Your task to perform on an android device: Search for the best gaming mouse on Best Buy. Image 0: 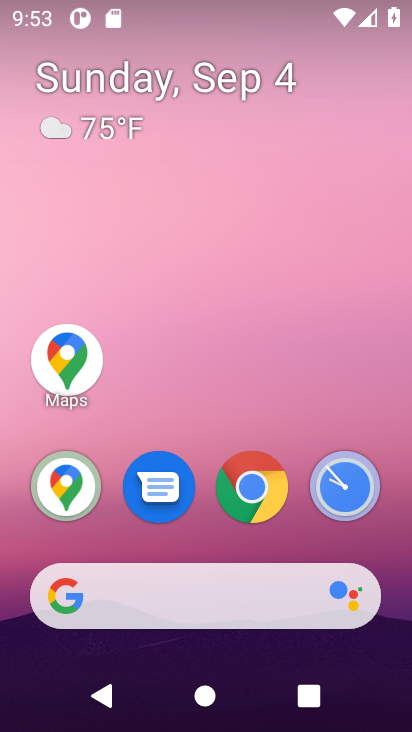
Step 0: click (47, 351)
Your task to perform on an android device: Search for the best gaming mouse on Best Buy. Image 1: 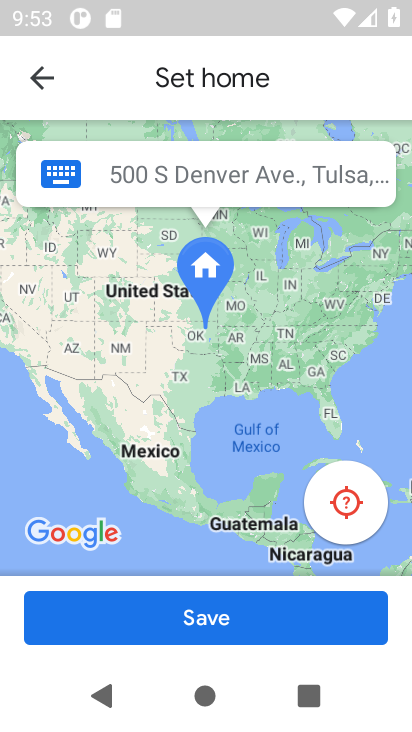
Step 1: click (332, 636)
Your task to perform on an android device: Search for the best gaming mouse on Best Buy. Image 2: 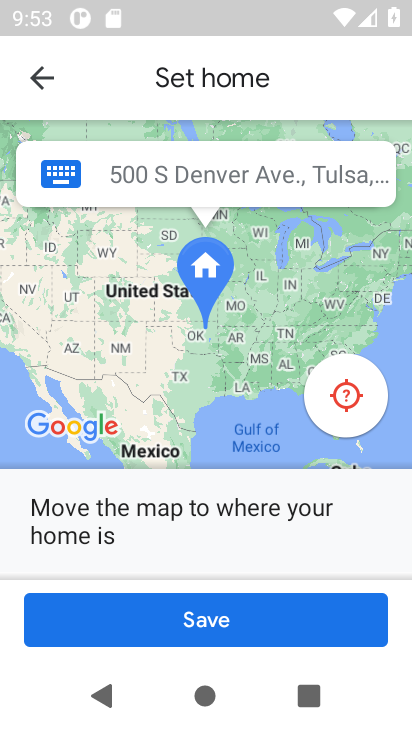
Step 2: task complete